Your task to perform on an android device: Go to settings Image 0: 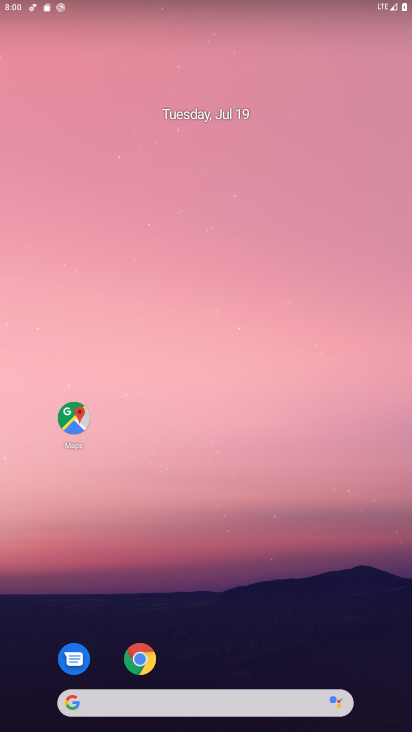
Step 0: drag from (196, 669) to (385, 579)
Your task to perform on an android device: Go to settings Image 1: 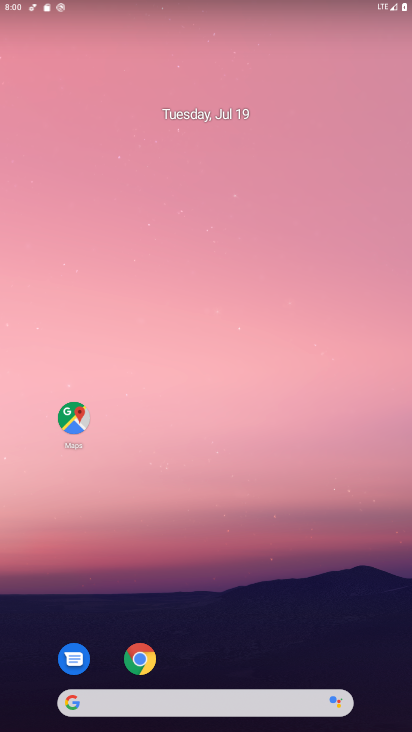
Step 1: drag from (194, 597) to (296, 10)
Your task to perform on an android device: Go to settings Image 2: 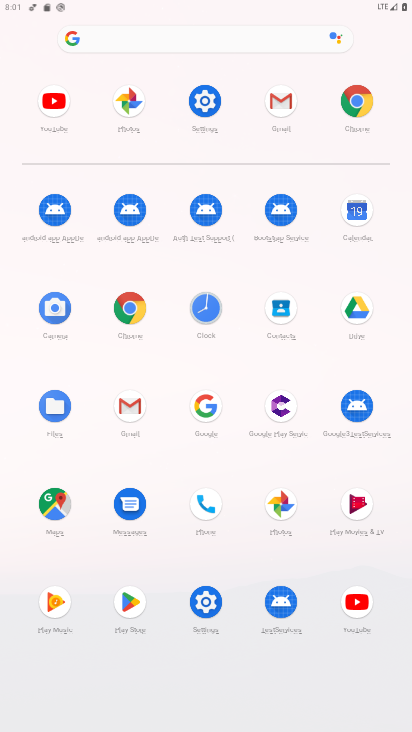
Step 2: click (205, 603)
Your task to perform on an android device: Go to settings Image 3: 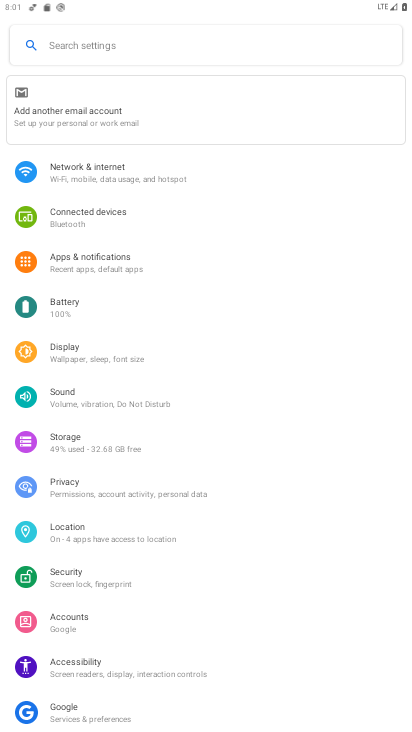
Step 3: task complete